Your task to perform on an android device: Search for Italian restaurants on Maps Image 0: 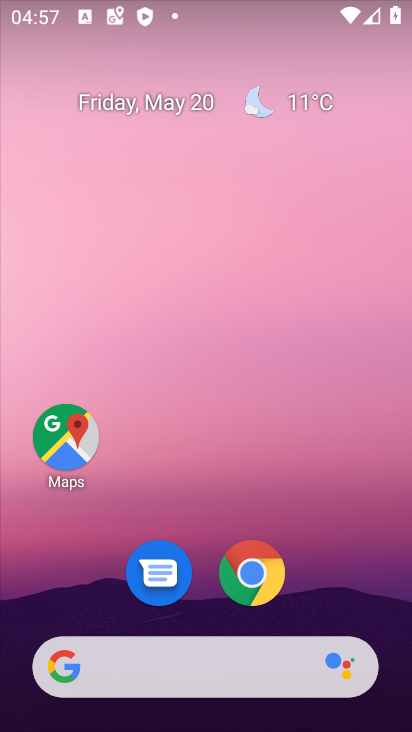
Step 0: click (66, 438)
Your task to perform on an android device: Search for Italian restaurants on Maps Image 1: 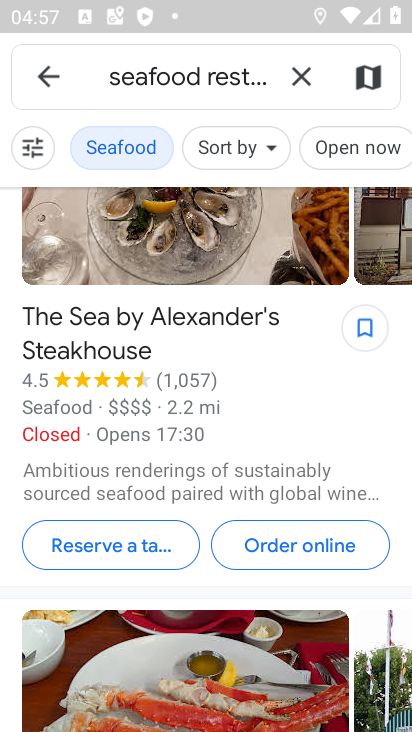
Step 1: click (302, 78)
Your task to perform on an android device: Search for Italian restaurants on Maps Image 2: 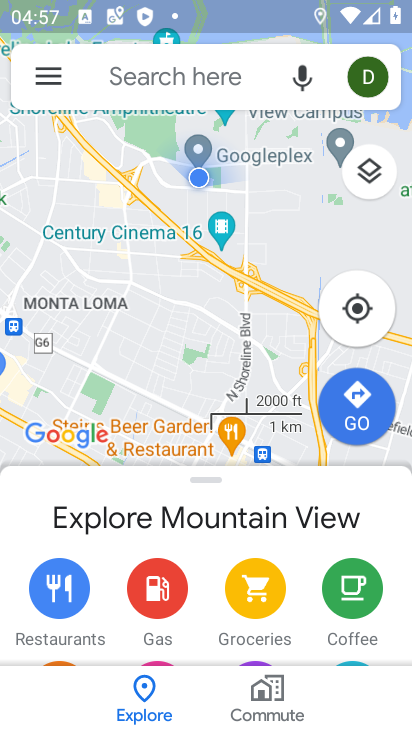
Step 2: click (128, 68)
Your task to perform on an android device: Search for Italian restaurants on Maps Image 3: 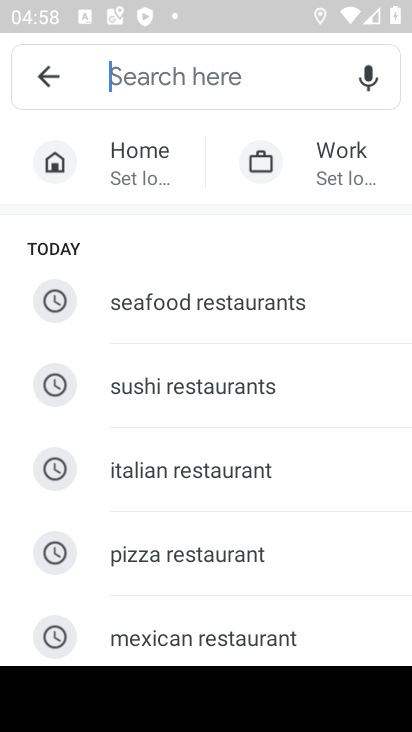
Step 3: type "italian restaurants"
Your task to perform on an android device: Search for Italian restaurants on Maps Image 4: 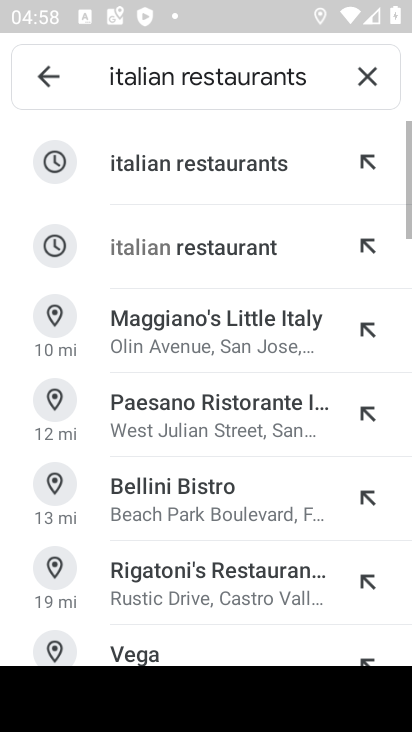
Step 4: click (174, 150)
Your task to perform on an android device: Search for Italian restaurants on Maps Image 5: 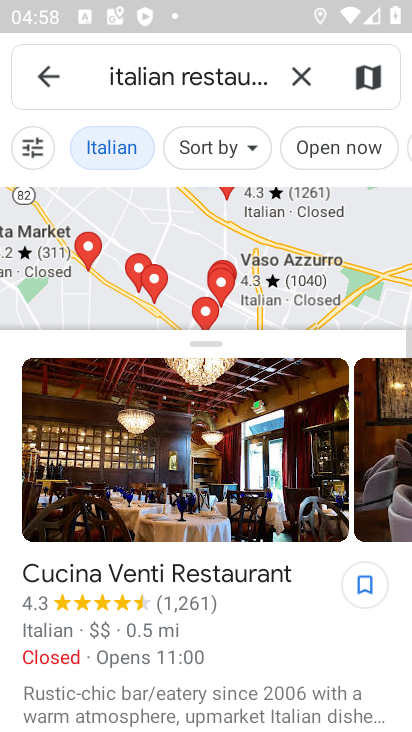
Step 5: task complete